Your task to perform on an android device: Open Wikipedia Image 0: 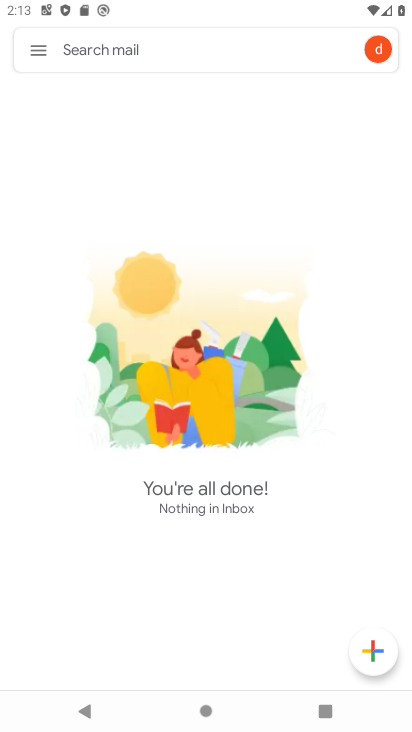
Step 0: press home button
Your task to perform on an android device: Open Wikipedia Image 1: 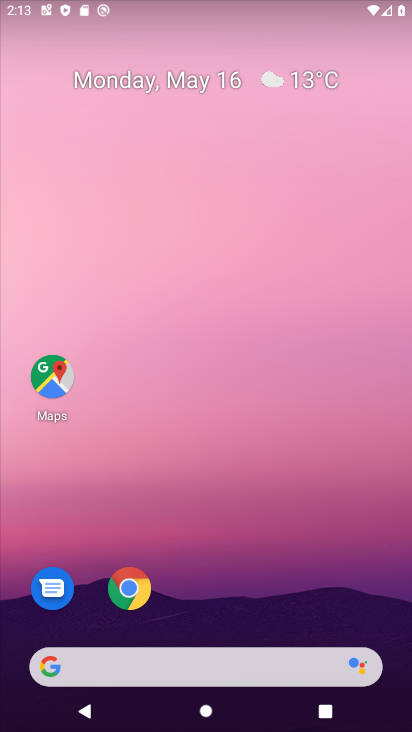
Step 1: drag from (101, 667) to (222, 64)
Your task to perform on an android device: Open Wikipedia Image 2: 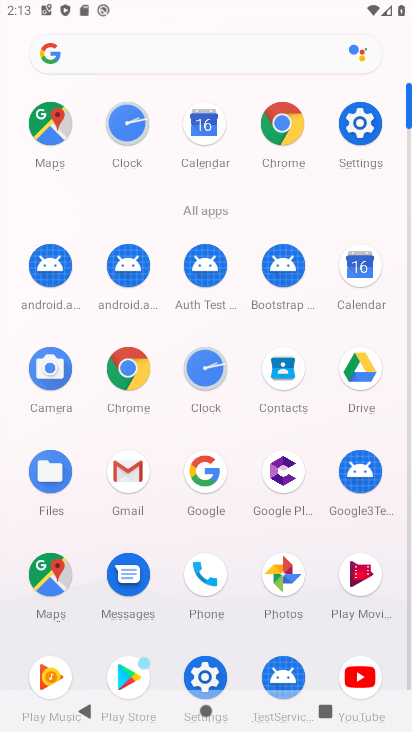
Step 2: click (135, 368)
Your task to perform on an android device: Open Wikipedia Image 3: 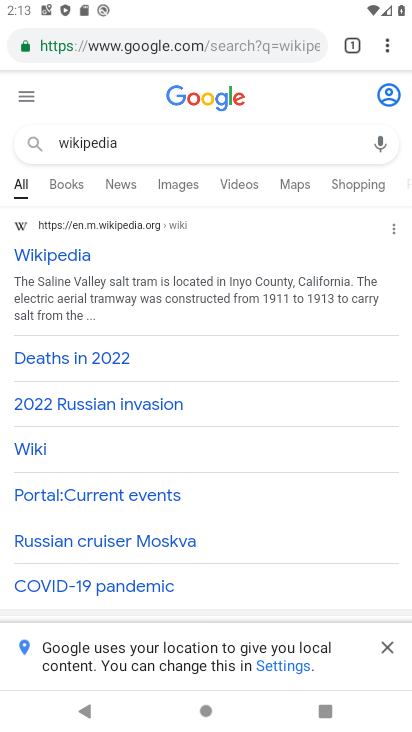
Step 3: task complete